Your task to perform on an android device: turn on the 24-hour format for clock Image 0: 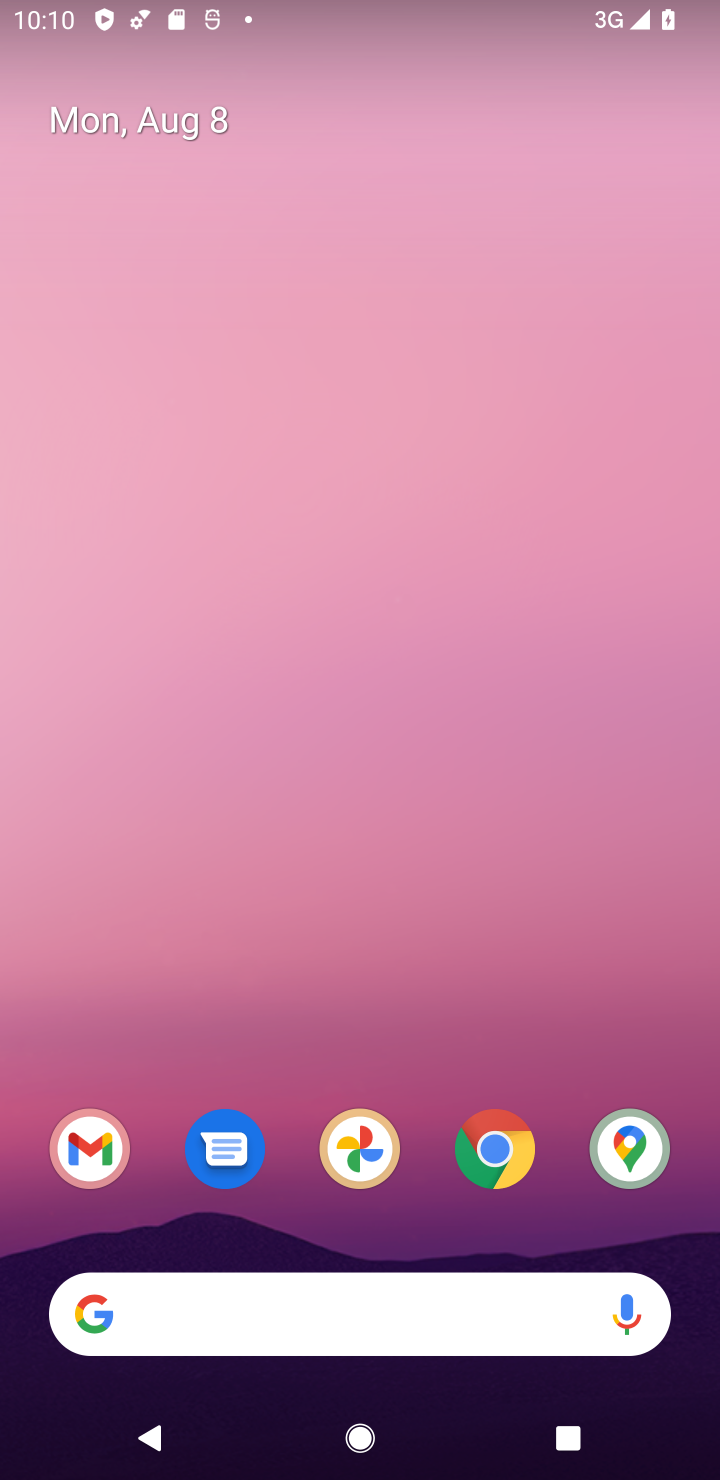
Step 0: click (392, 284)
Your task to perform on an android device: turn on the 24-hour format for clock Image 1: 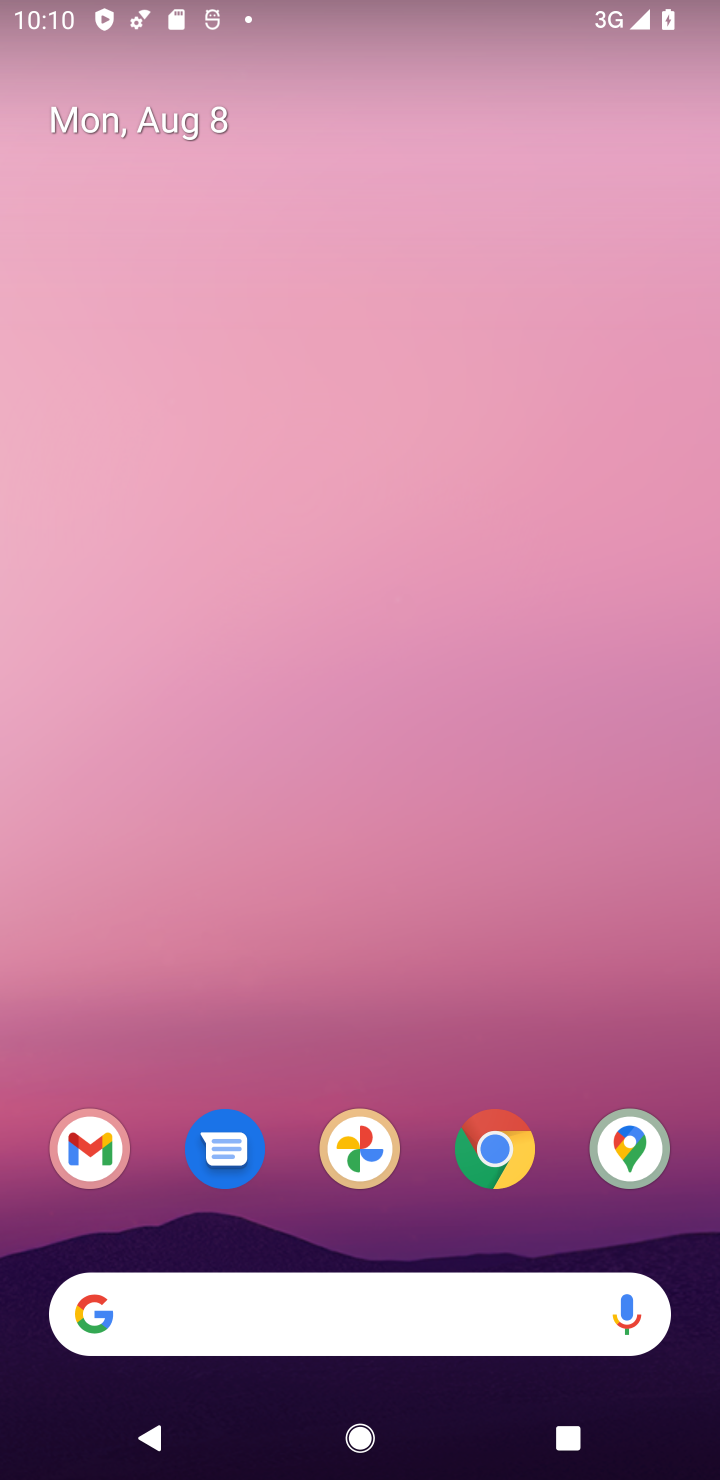
Step 1: drag from (348, 1256) to (312, 501)
Your task to perform on an android device: turn on the 24-hour format for clock Image 2: 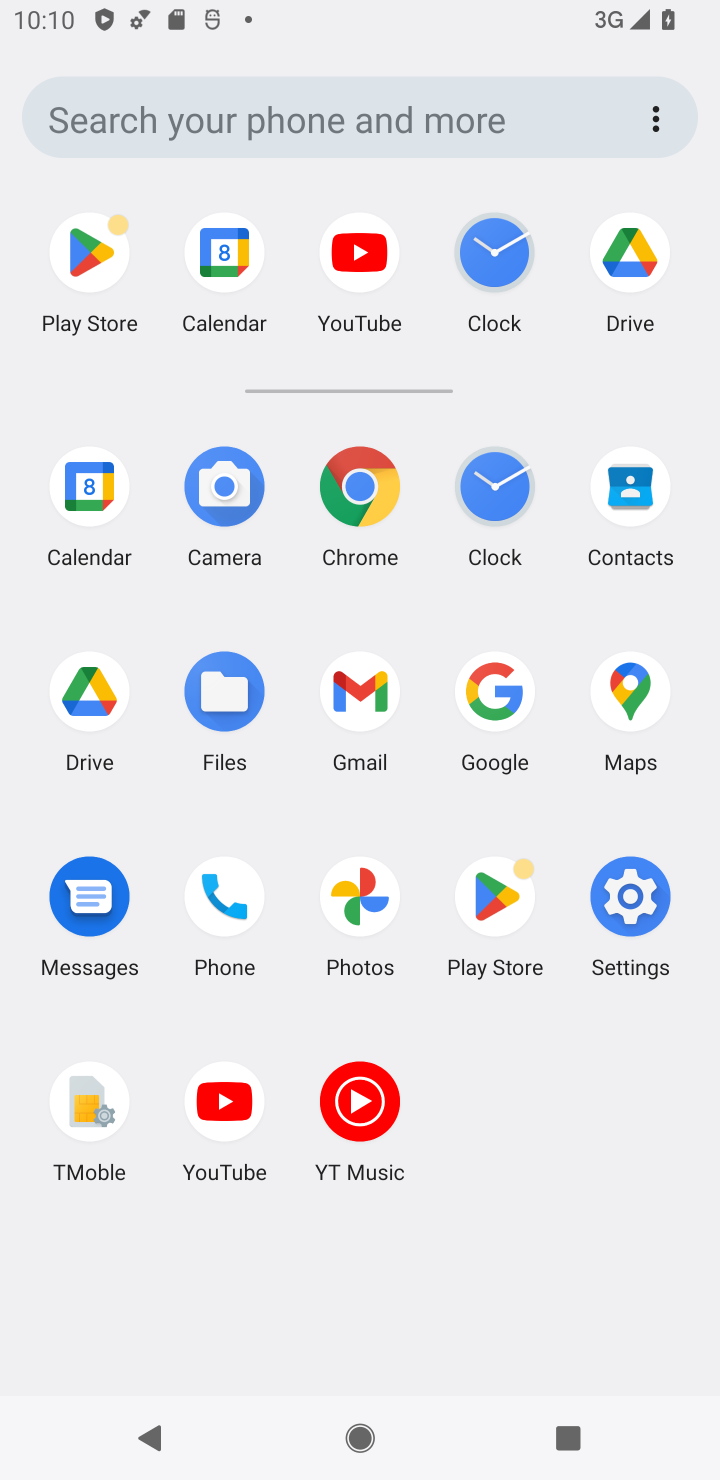
Step 2: click (489, 500)
Your task to perform on an android device: turn on the 24-hour format for clock Image 3: 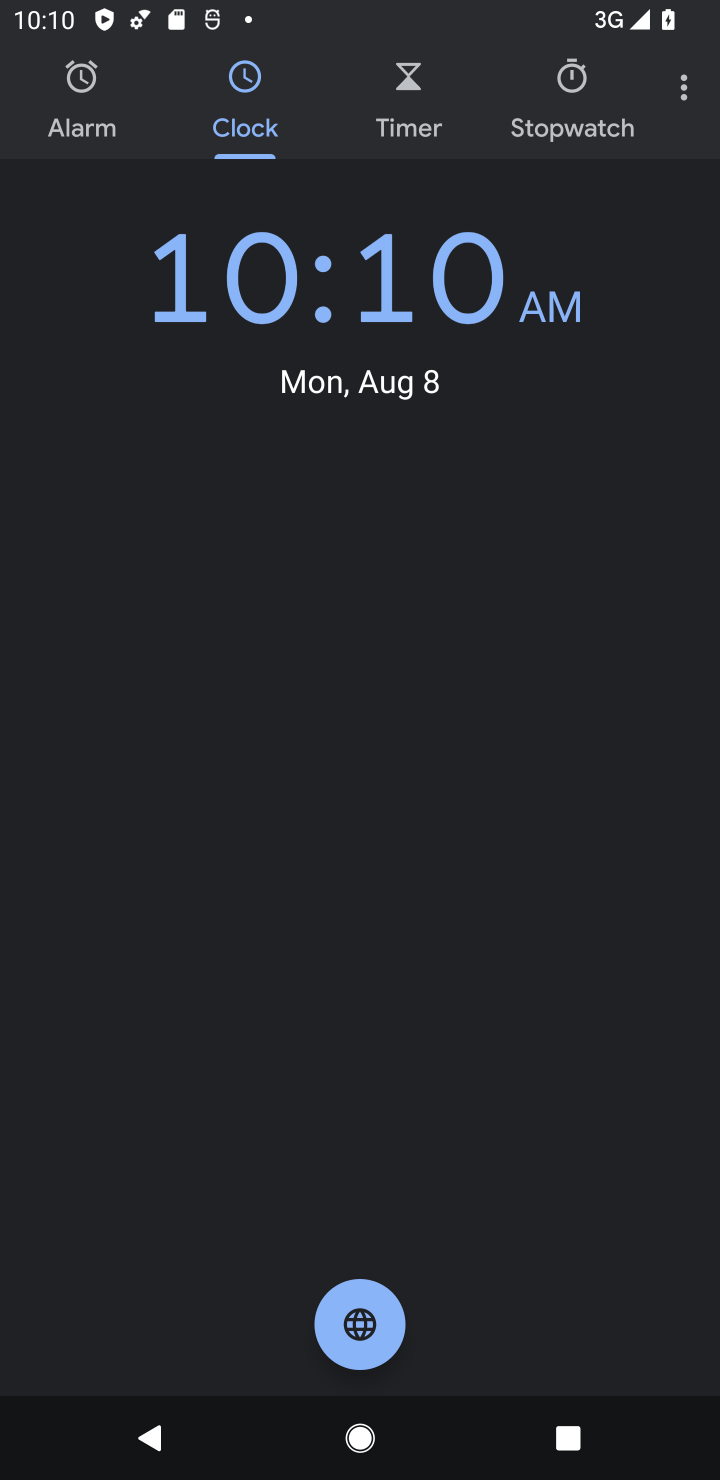
Step 3: click (678, 97)
Your task to perform on an android device: turn on the 24-hour format for clock Image 4: 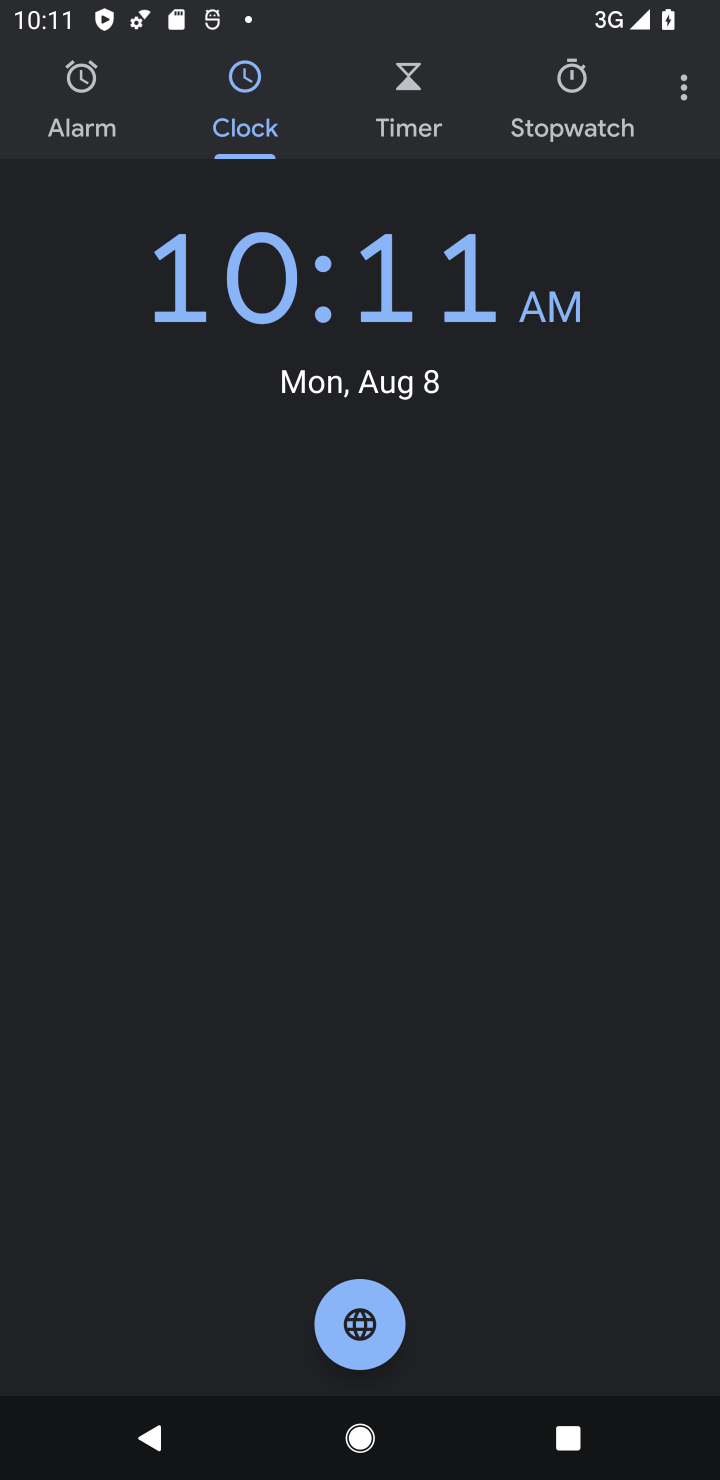
Step 4: click (694, 84)
Your task to perform on an android device: turn on the 24-hour format for clock Image 5: 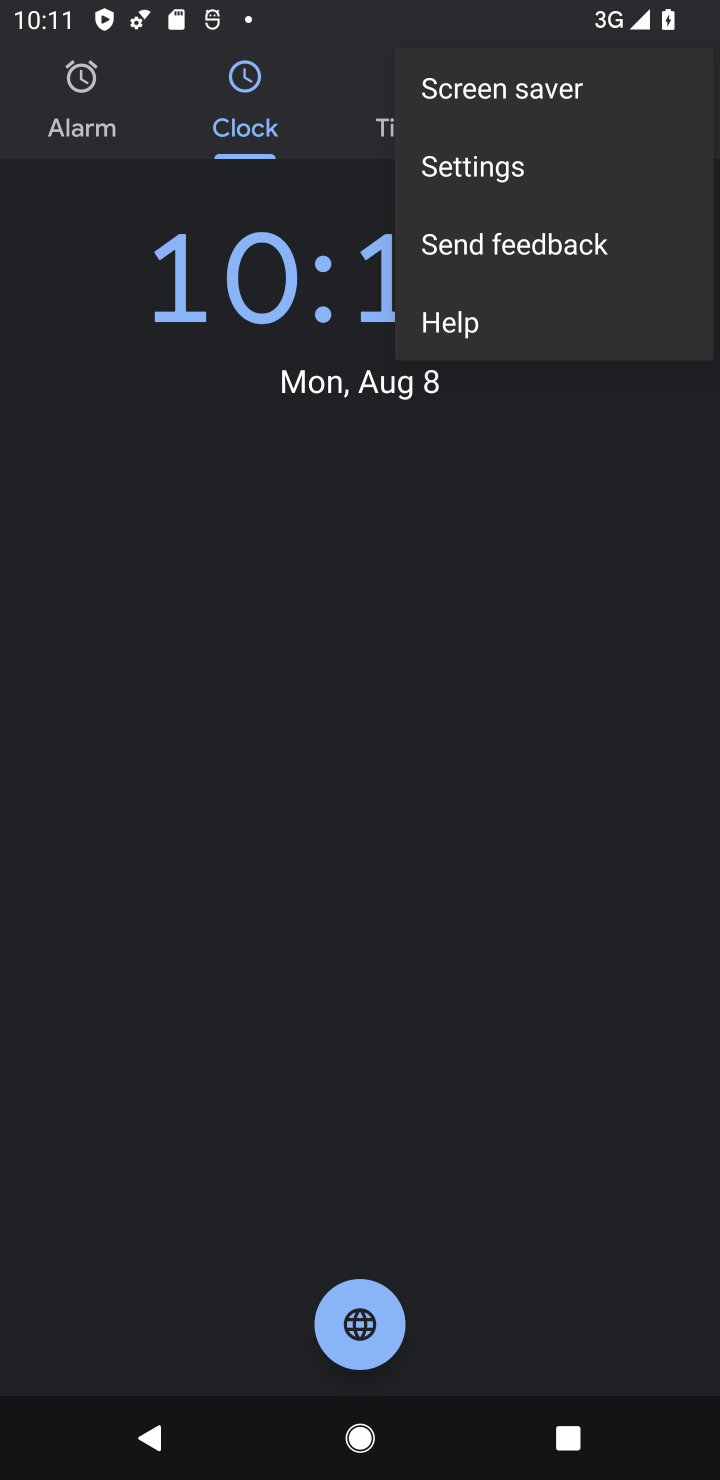
Step 5: click (512, 177)
Your task to perform on an android device: turn on the 24-hour format for clock Image 6: 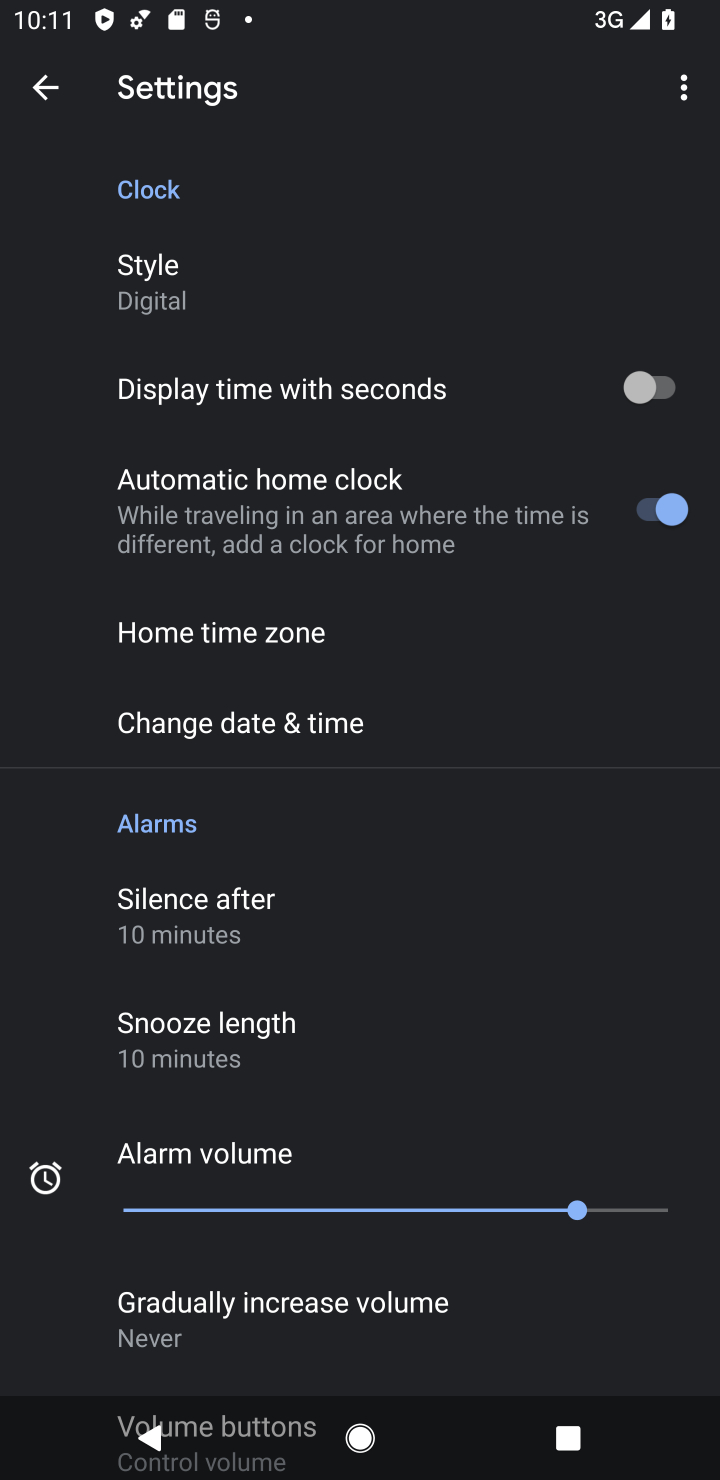
Step 6: click (234, 727)
Your task to perform on an android device: turn on the 24-hour format for clock Image 7: 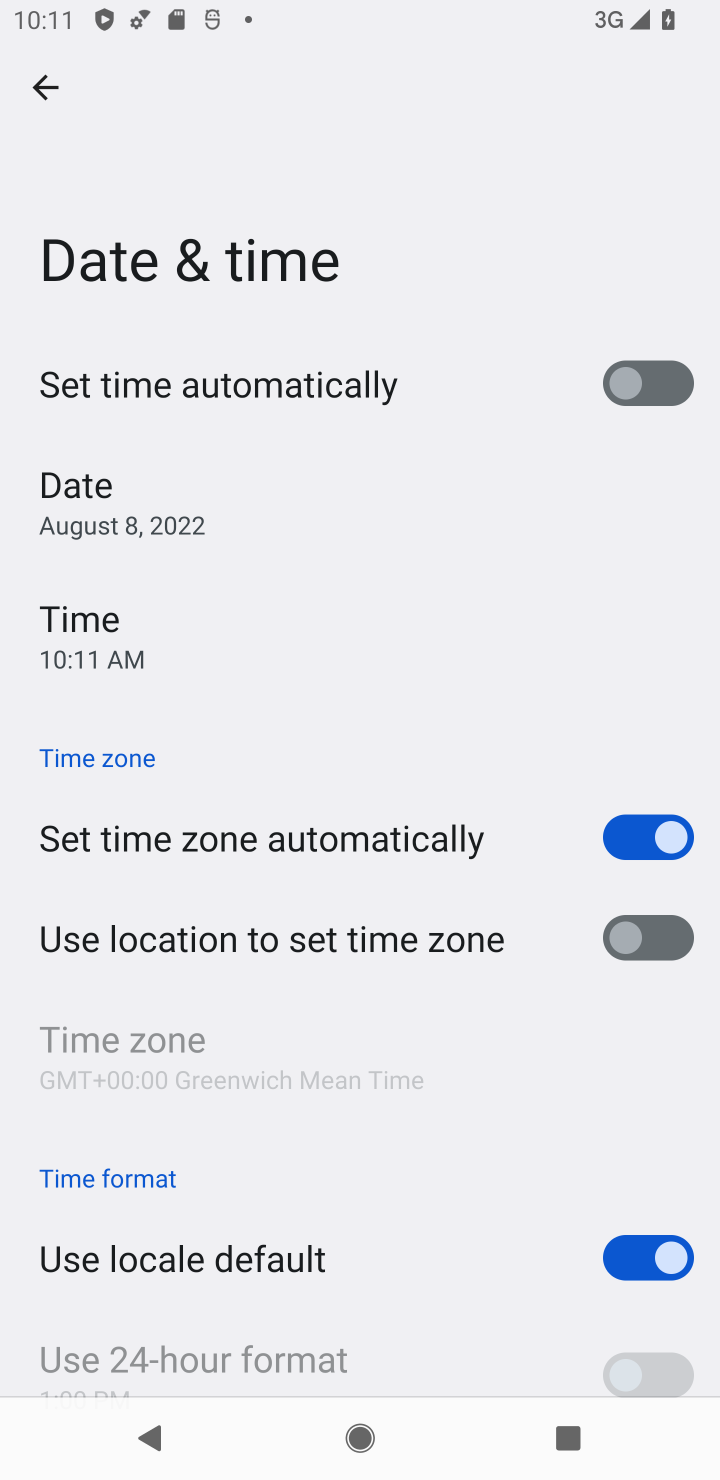
Step 7: click (651, 1251)
Your task to perform on an android device: turn on the 24-hour format for clock Image 8: 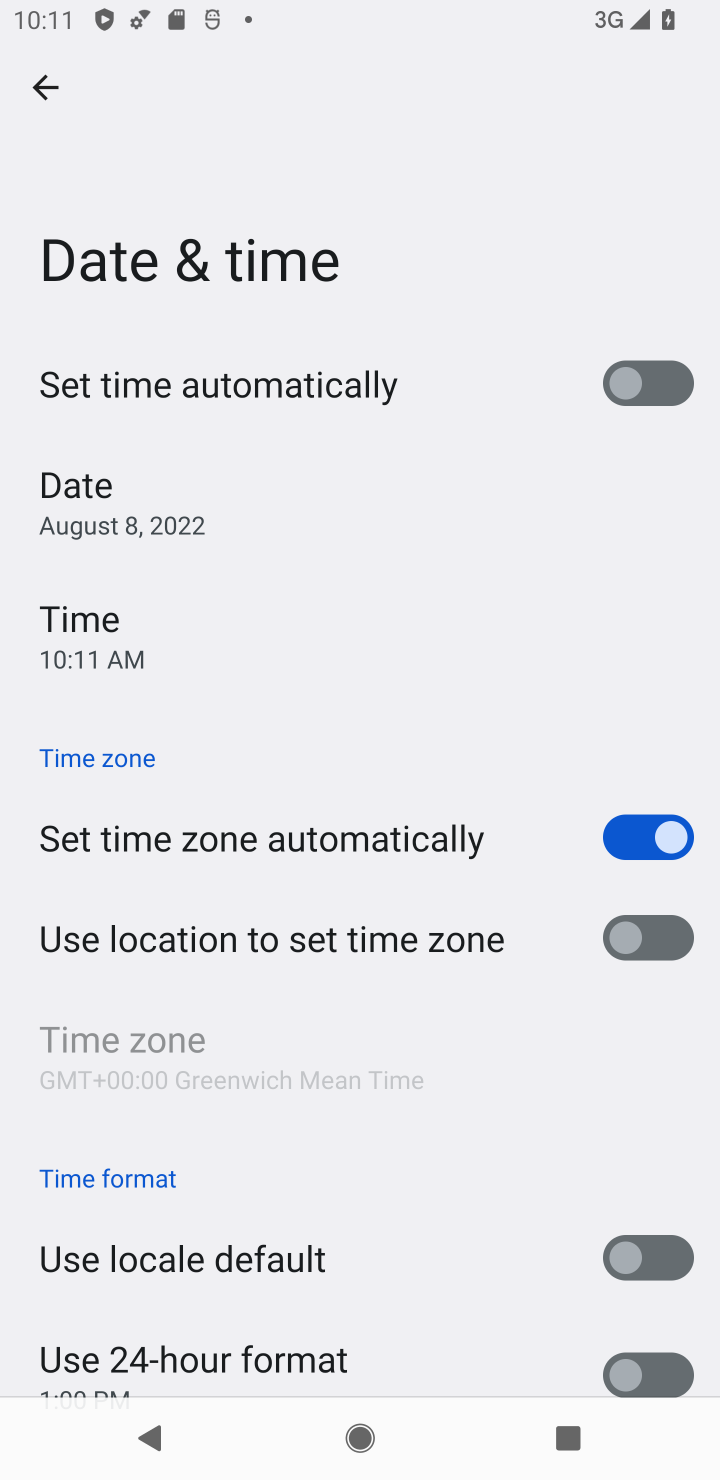
Step 8: click (655, 1368)
Your task to perform on an android device: turn on the 24-hour format for clock Image 9: 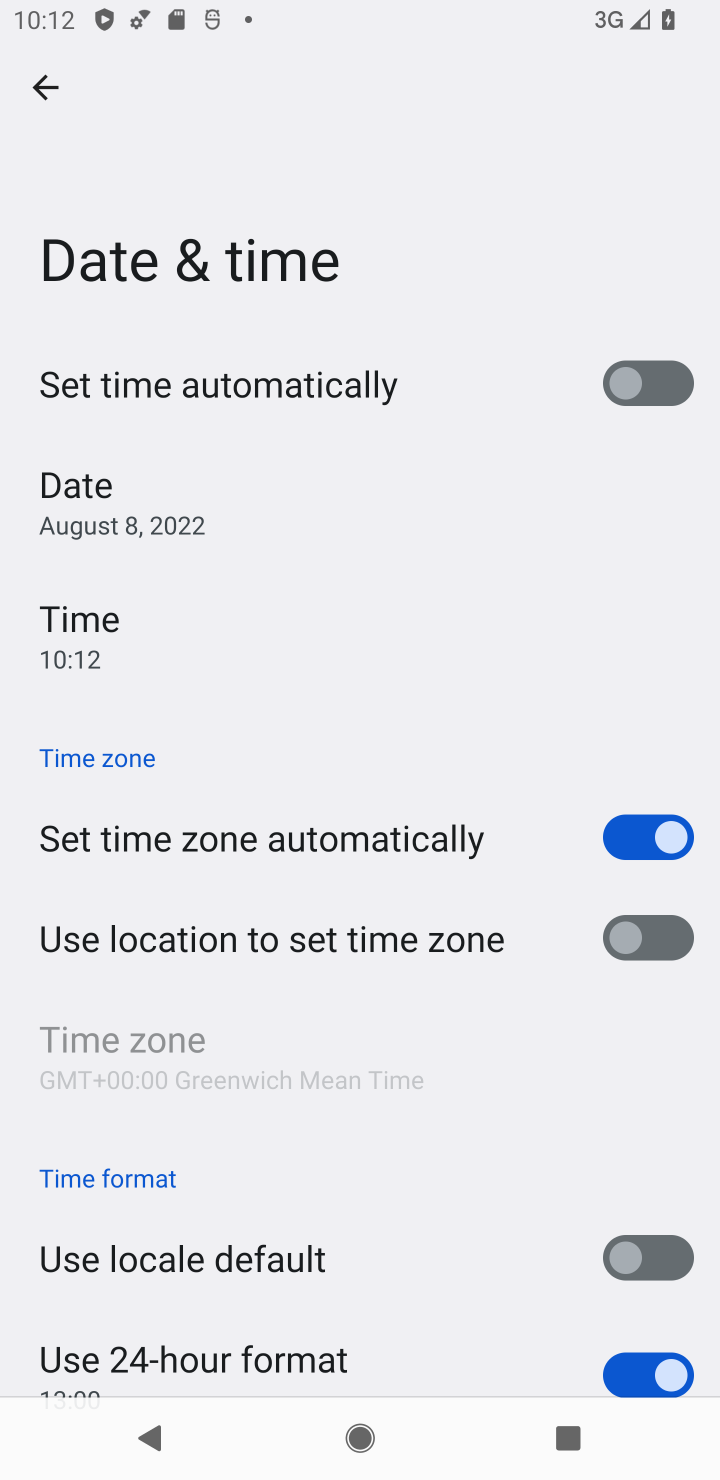
Step 9: task complete